Your task to perform on an android device: change the clock style Image 0: 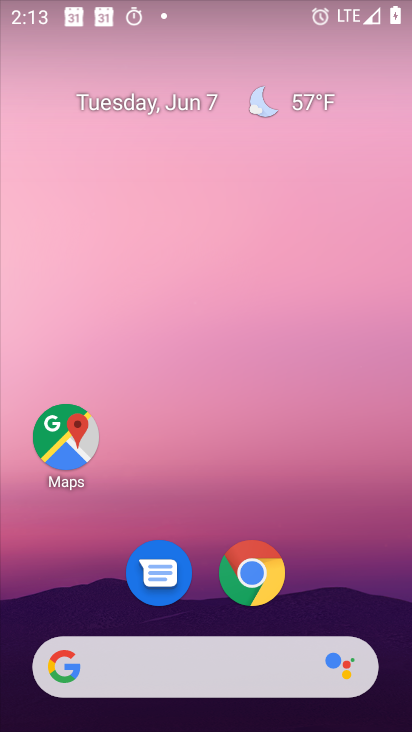
Step 0: drag from (357, 596) to (355, 42)
Your task to perform on an android device: change the clock style Image 1: 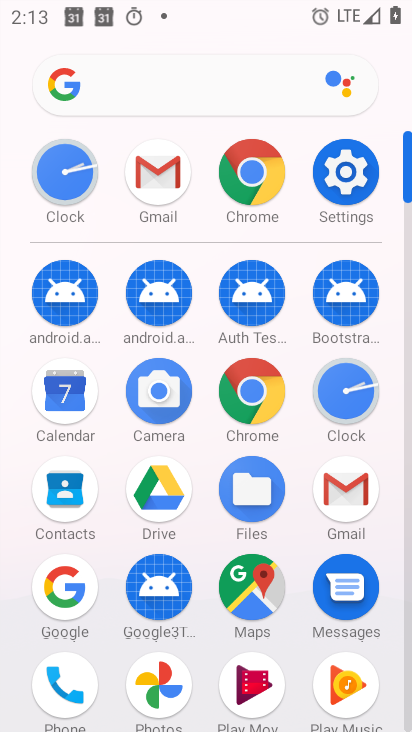
Step 1: click (338, 394)
Your task to perform on an android device: change the clock style Image 2: 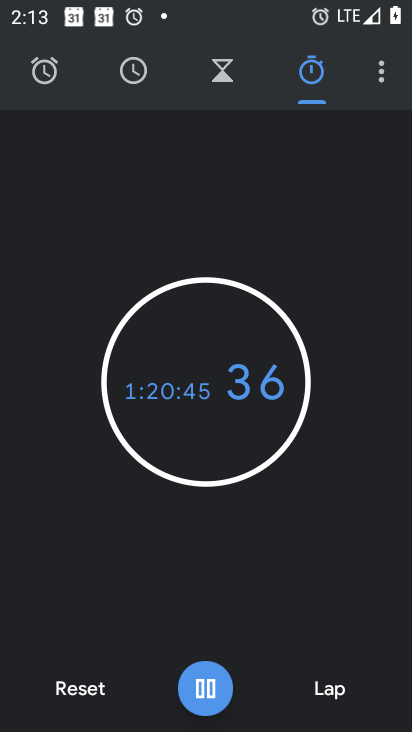
Step 2: drag from (382, 71) to (374, 111)
Your task to perform on an android device: change the clock style Image 3: 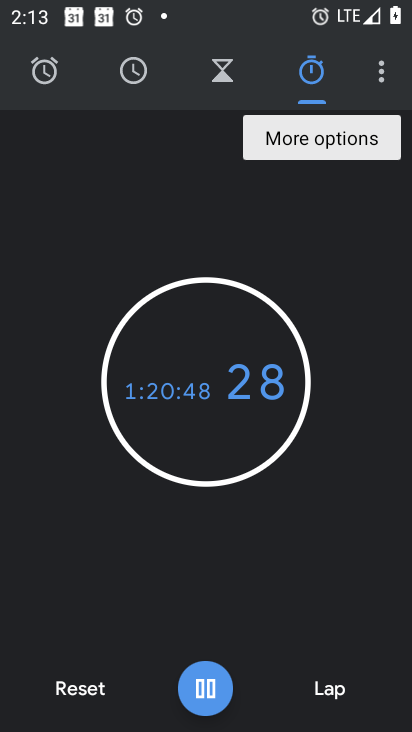
Step 3: click (378, 79)
Your task to perform on an android device: change the clock style Image 4: 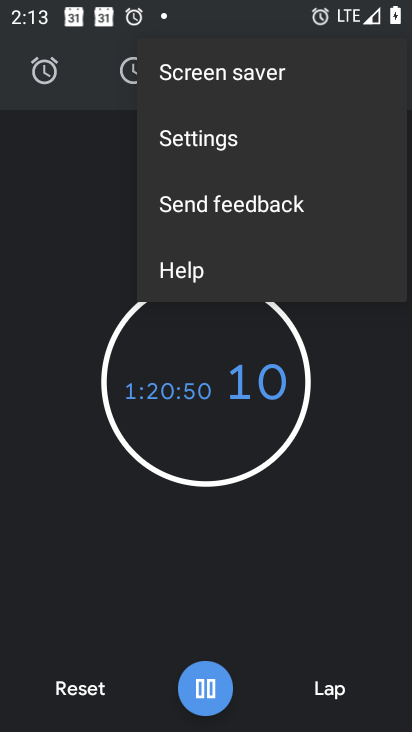
Step 4: click (242, 133)
Your task to perform on an android device: change the clock style Image 5: 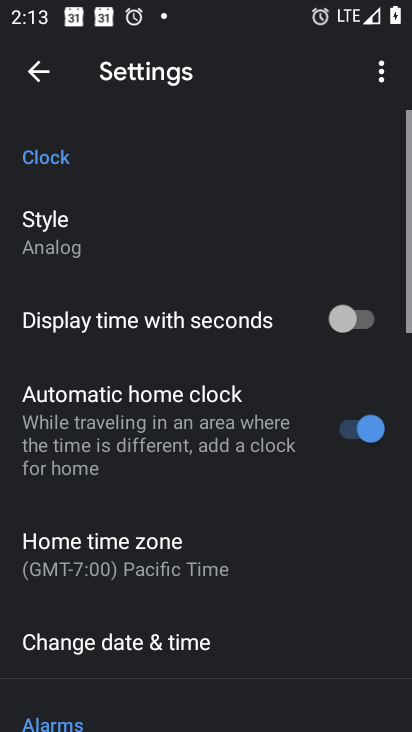
Step 5: click (152, 243)
Your task to perform on an android device: change the clock style Image 6: 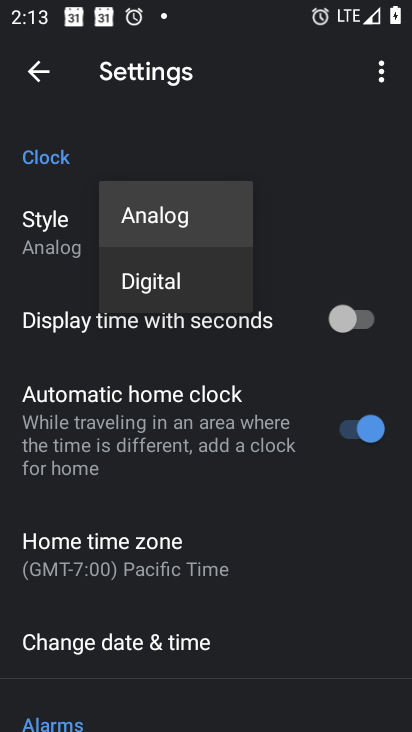
Step 6: click (171, 277)
Your task to perform on an android device: change the clock style Image 7: 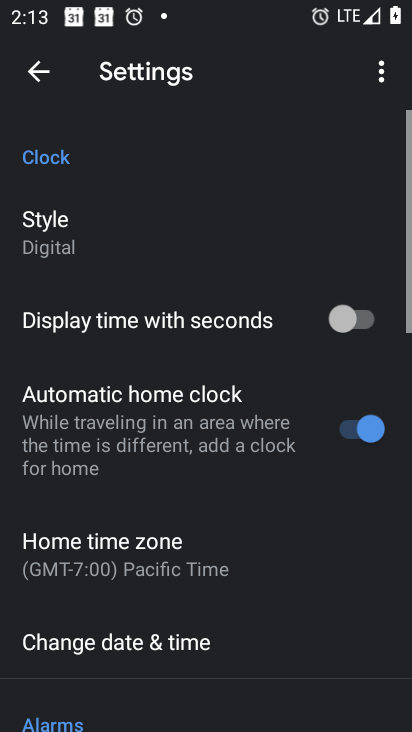
Step 7: task complete